Your task to perform on an android device: Open eBay Image 0: 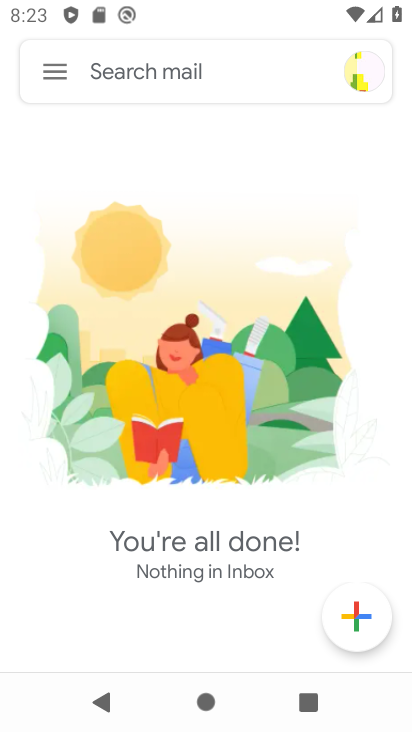
Step 0: press home button
Your task to perform on an android device: Open eBay Image 1: 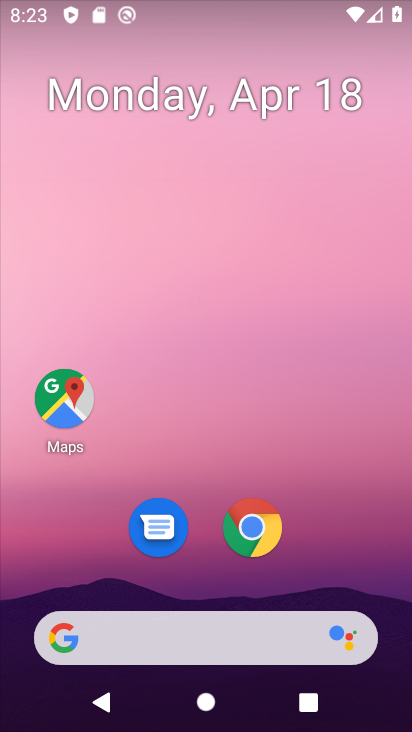
Step 1: click (217, 639)
Your task to perform on an android device: Open eBay Image 2: 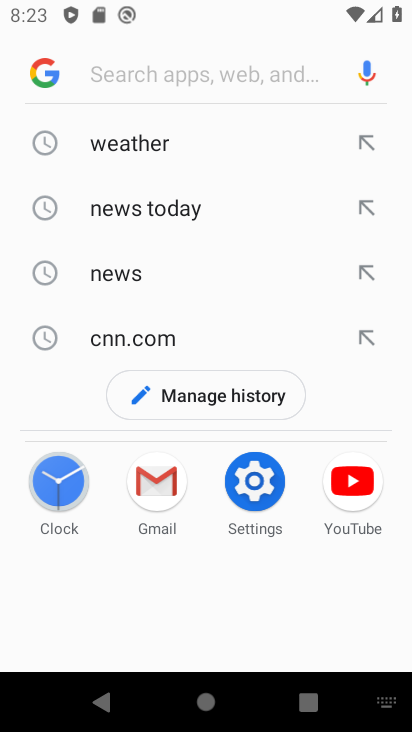
Step 2: type "eBay"
Your task to perform on an android device: Open eBay Image 3: 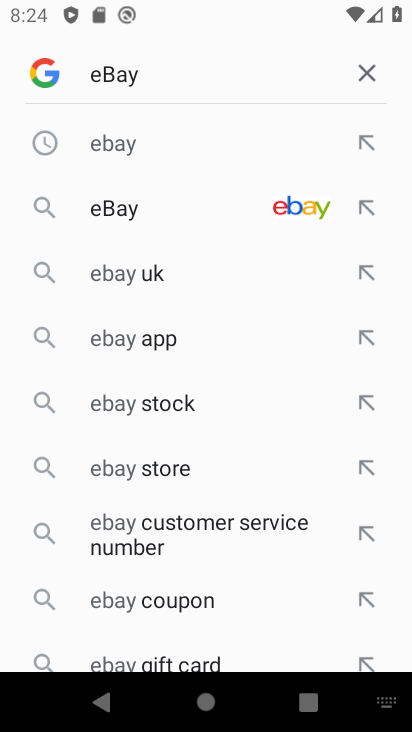
Step 3: click (256, 200)
Your task to perform on an android device: Open eBay Image 4: 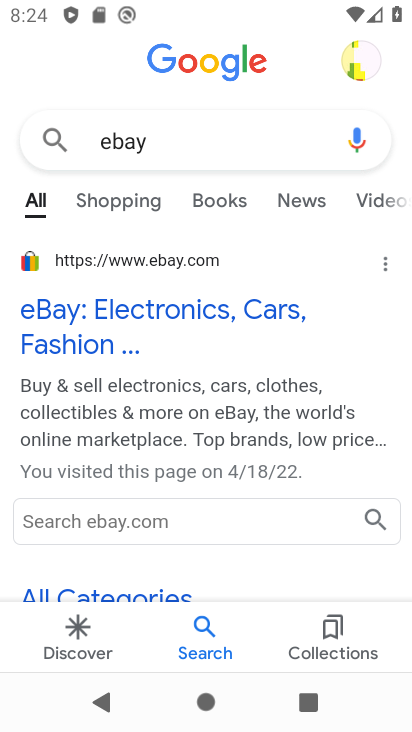
Step 4: click (139, 311)
Your task to perform on an android device: Open eBay Image 5: 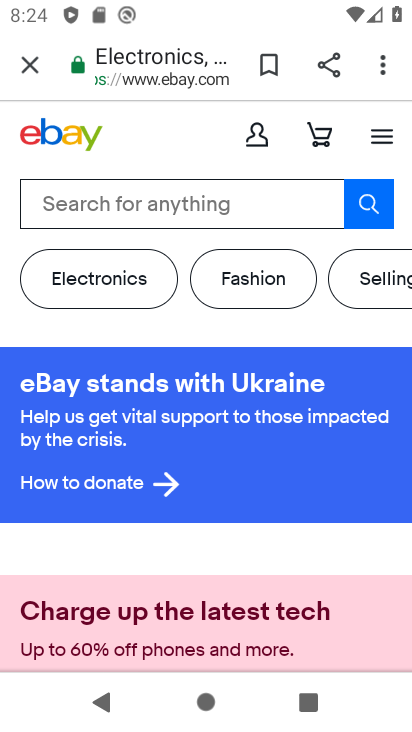
Step 5: task complete